Your task to perform on an android device: all mails in gmail Image 0: 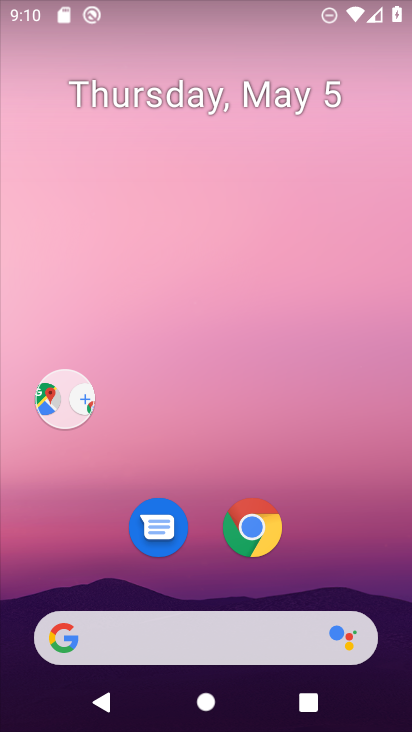
Step 0: drag from (375, 608) to (137, 61)
Your task to perform on an android device: all mails in gmail Image 1: 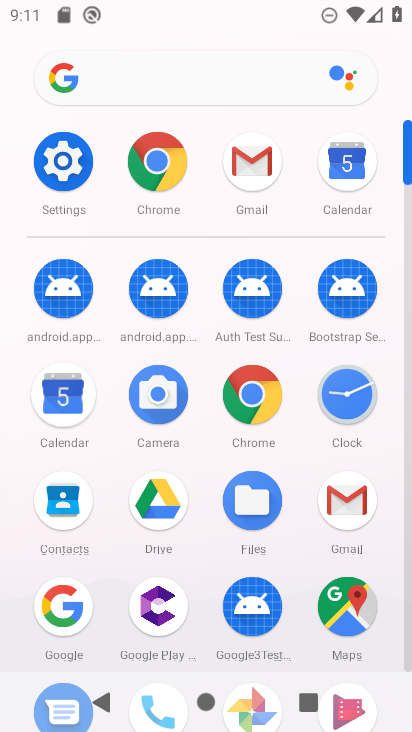
Step 1: click (357, 508)
Your task to perform on an android device: all mails in gmail Image 2: 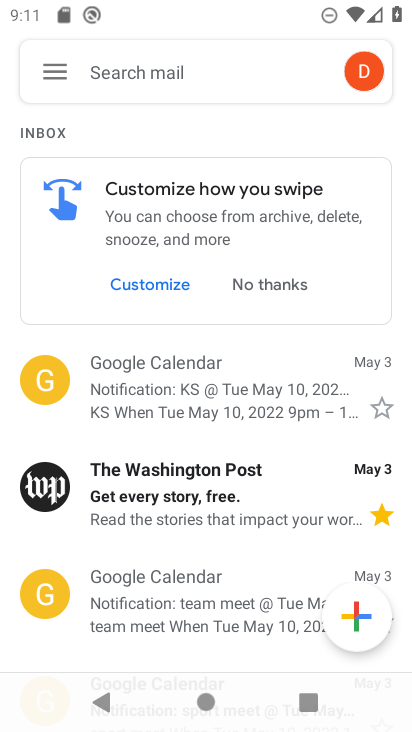
Step 2: click (53, 65)
Your task to perform on an android device: all mails in gmail Image 3: 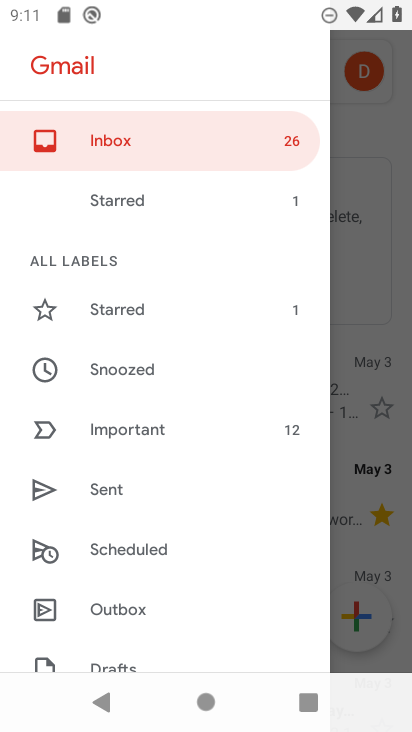
Step 3: drag from (175, 566) to (152, 84)
Your task to perform on an android device: all mails in gmail Image 4: 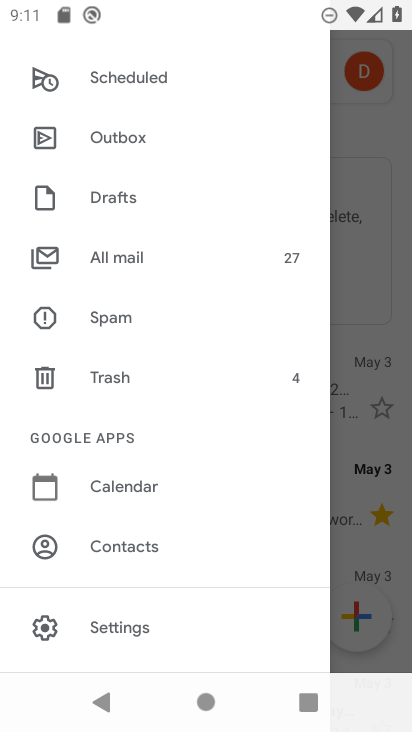
Step 4: click (124, 256)
Your task to perform on an android device: all mails in gmail Image 5: 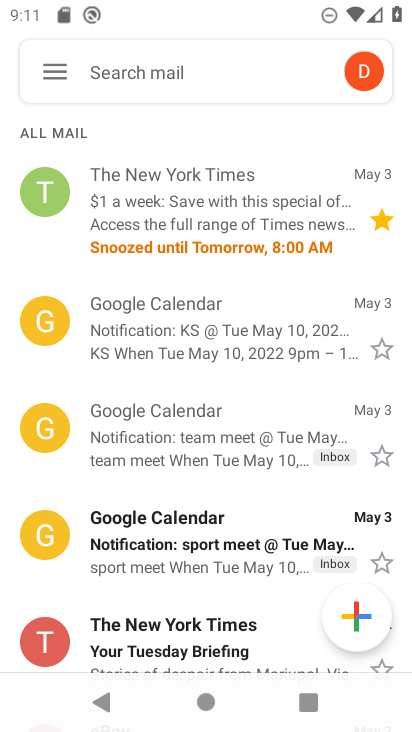
Step 5: task complete